Your task to perform on an android device: Go to internet settings Image 0: 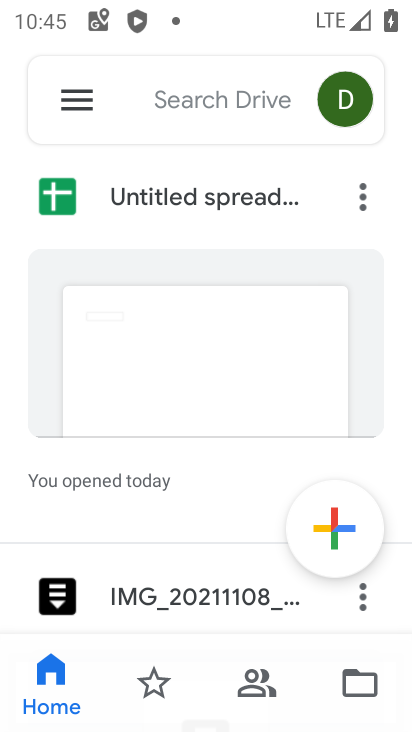
Step 0: press home button
Your task to perform on an android device: Go to internet settings Image 1: 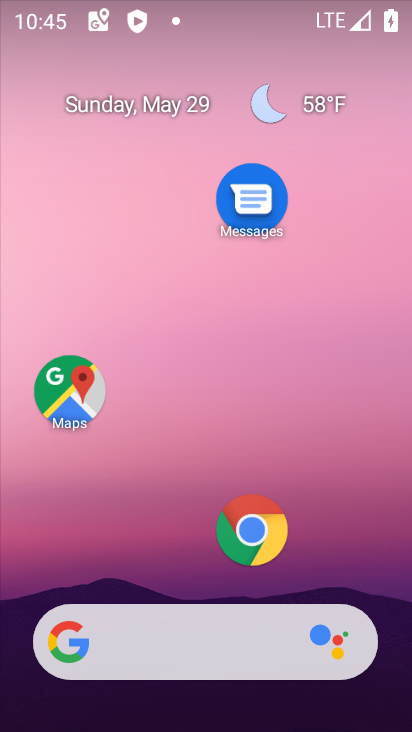
Step 1: drag from (172, 558) to (397, 499)
Your task to perform on an android device: Go to internet settings Image 2: 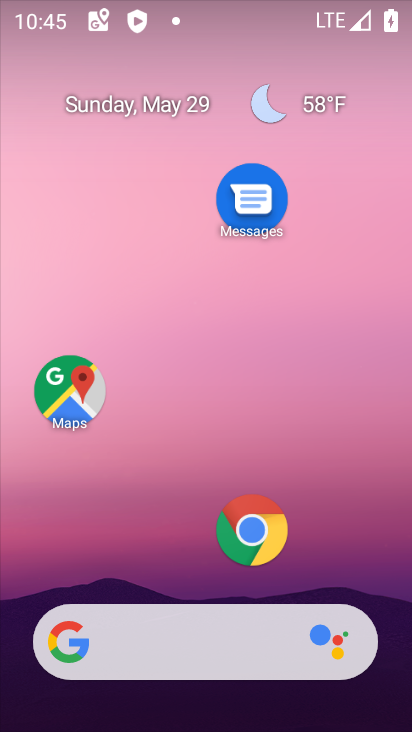
Step 2: drag from (179, 584) to (229, 143)
Your task to perform on an android device: Go to internet settings Image 3: 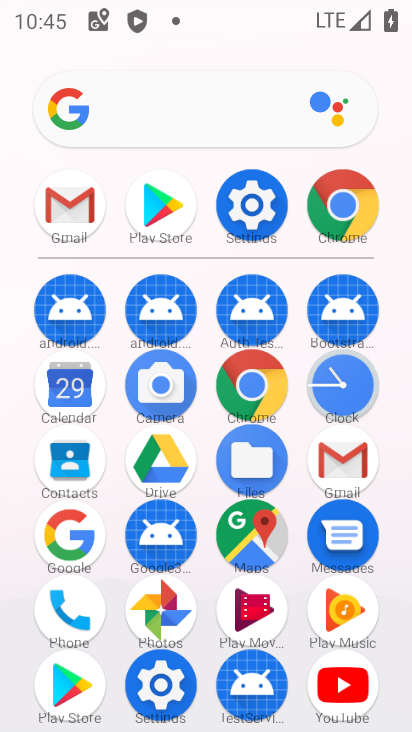
Step 3: click (238, 194)
Your task to perform on an android device: Go to internet settings Image 4: 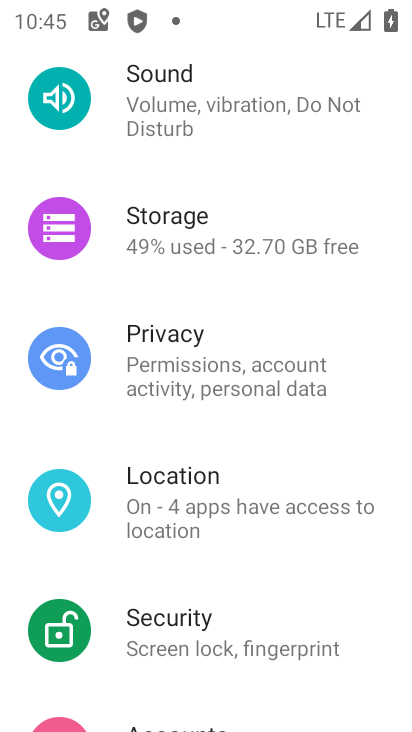
Step 4: drag from (185, 180) to (189, 413)
Your task to perform on an android device: Go to internet settings Image 5: 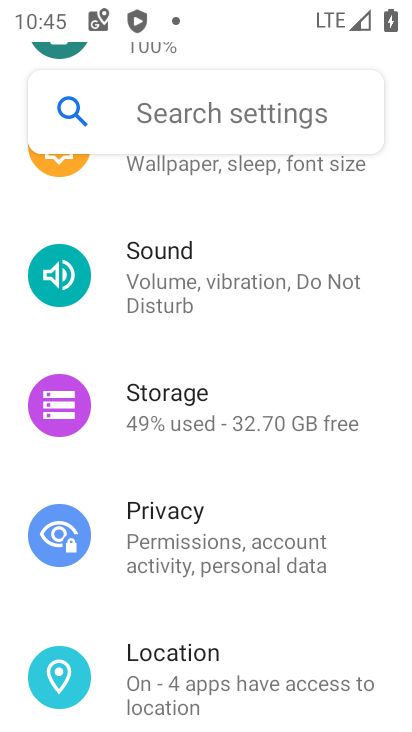
Step 5: drag from (198, 323) to (185, 411)
Your task to perform on an android device: Go to internet settings Image 6: 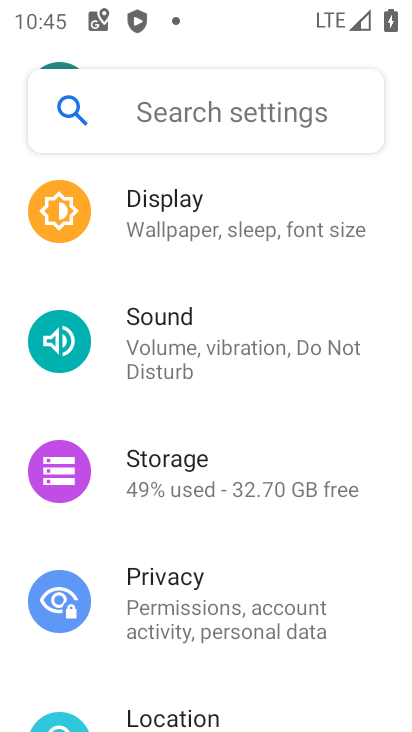
Step 6: drag from (206, 273) to (202, 551)
Your task to perform on an android device: Go to internet settings Image 7: 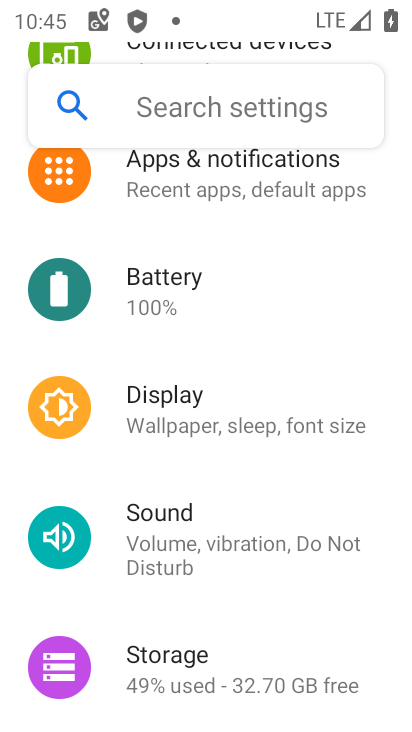
Step 7: drag from (223, 264) to (218, 471)
Your task to perform on an android device: Go to internet settings Image 8: 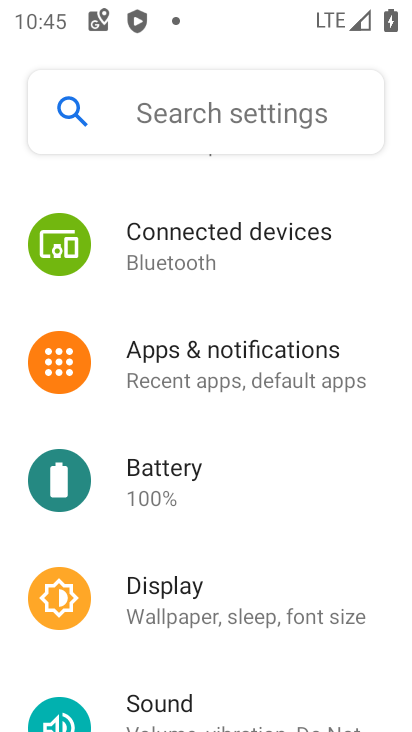
Step 8: drag from (224, 212) to (254, 445)
Your task to perform on an android device: Go to internet settings Image 9: 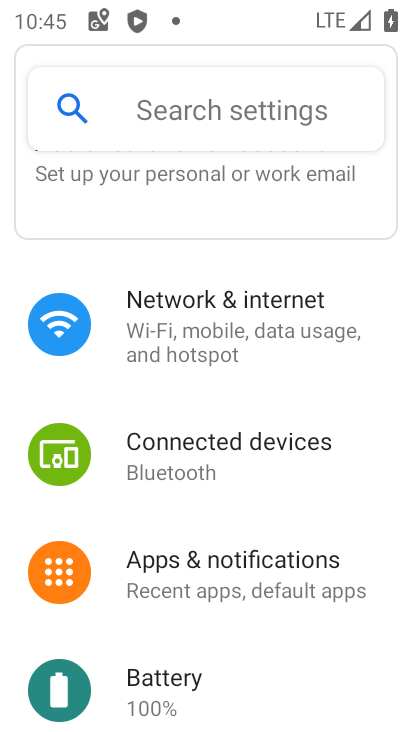
Step 9: click (231, 377)
Your task to perform on an android device: Go to internet settings Image 10: 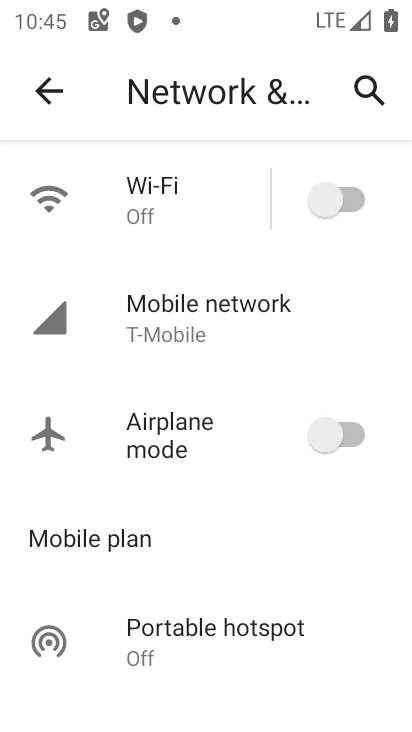
Step 10: task complete